Your task to perform on an android device: Open Chrome and go to settings Image 0: 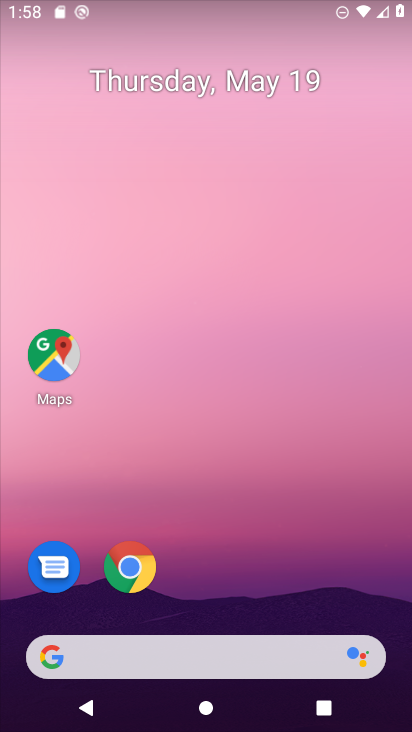
Step 0: click (140, 568)
Your task to perform on an android device: Open Chrome and go to settings Image 1: 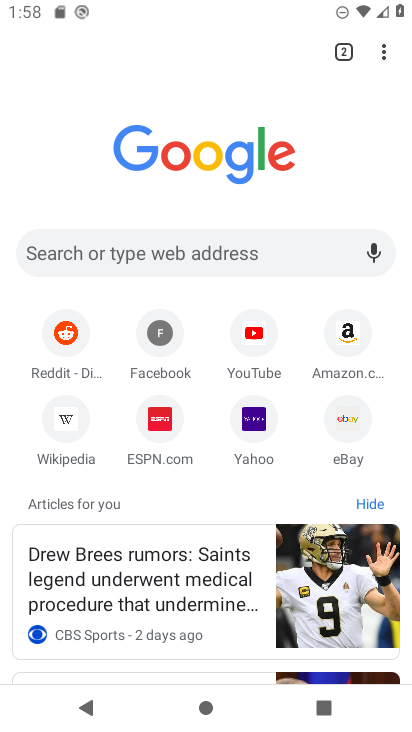
Step 1: click (381, 54)
Your task to perform on an android device: Open Chrome and go to settings Image 2: 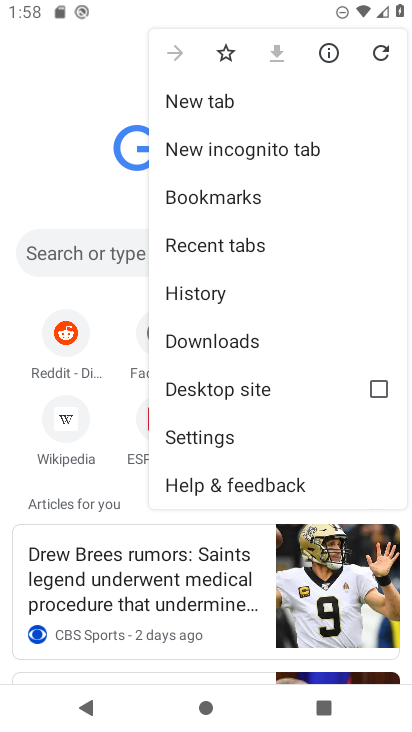
Step 2: click (225, 431)
Your task to perform on an android device: Open Chrome and go to settings Image 3: 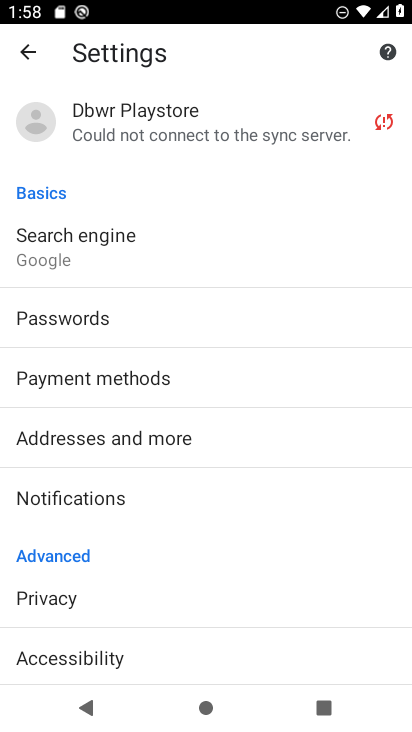
Step 3: task complete